Your task to perform on an android device: add a contact Image 0: 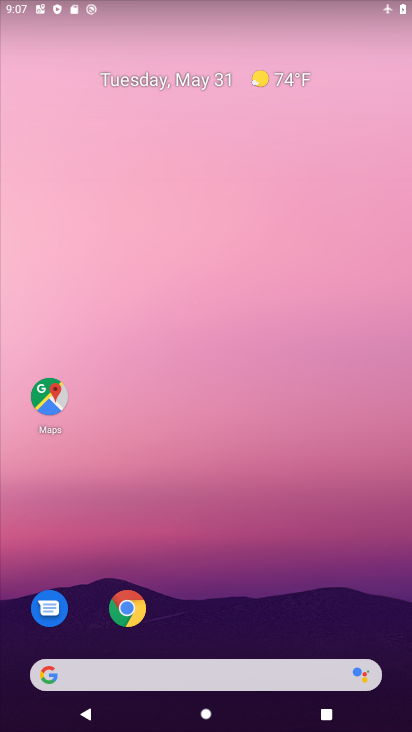
Step 0: drag from (251, 651) to (189, 74)
Your task to perform on an android device: add a contact Image 1: 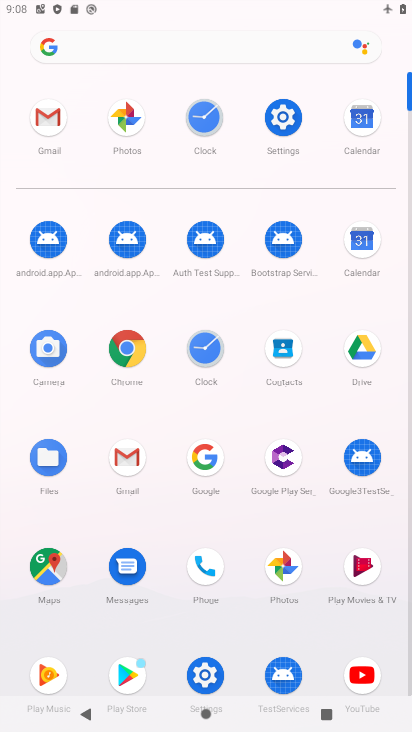
Step 1: click (215, 555)
Your task to perform on an android device: add a contact Image 2: 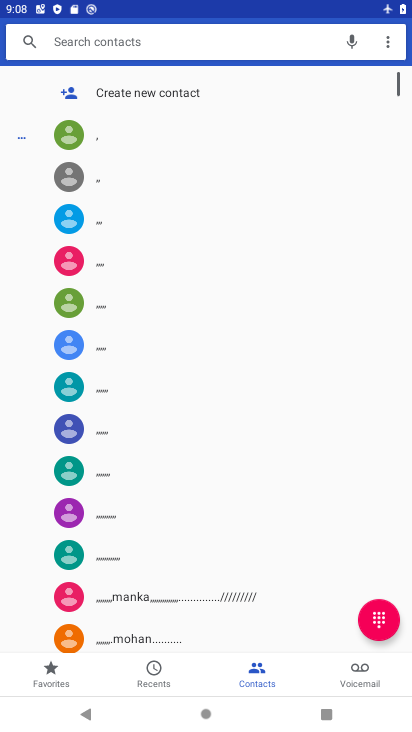
Step 2: click (122, 97)
Your task to perform on an android device: add a contact Image 3: 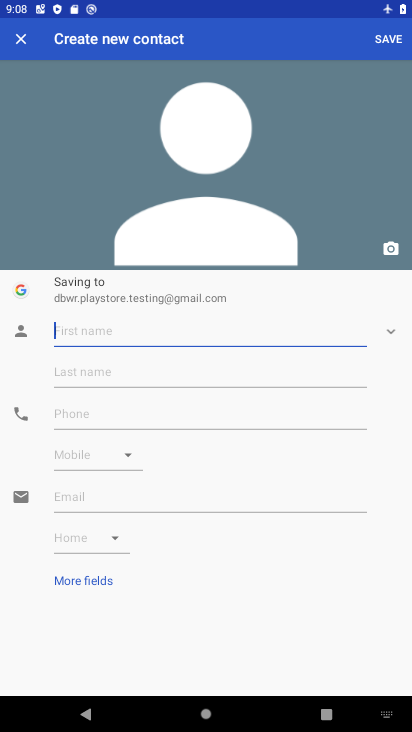
Step 3: type "bhj"
Your task to perform on an android device: add a contact Image 4: 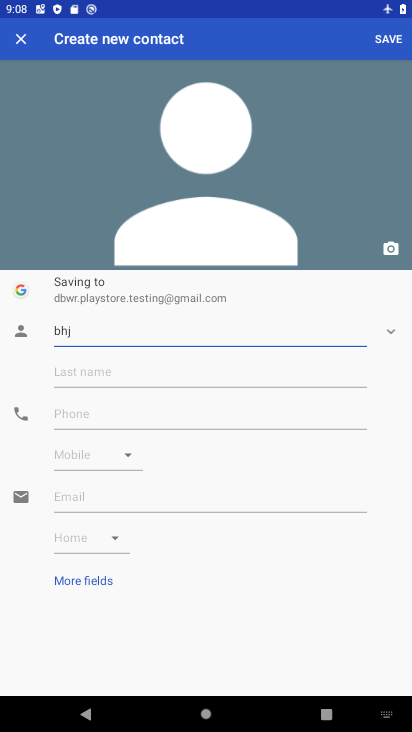
Step 4: click (209, 415)
Your task to perform on an android device: add a contact Image 5: 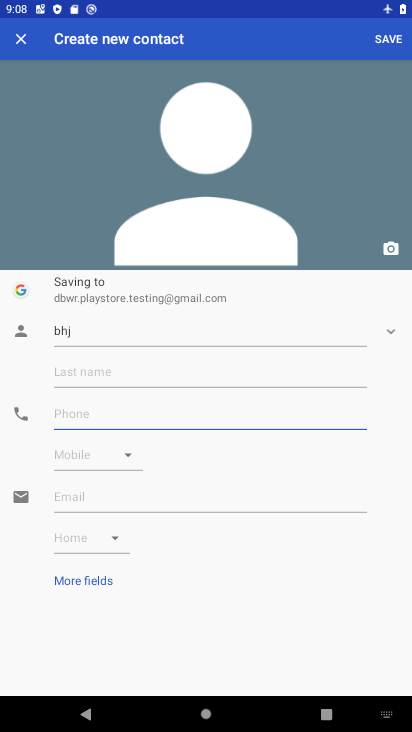
Step 5: type "8765"
Your task to perform on an android device: add a contact Image 6: 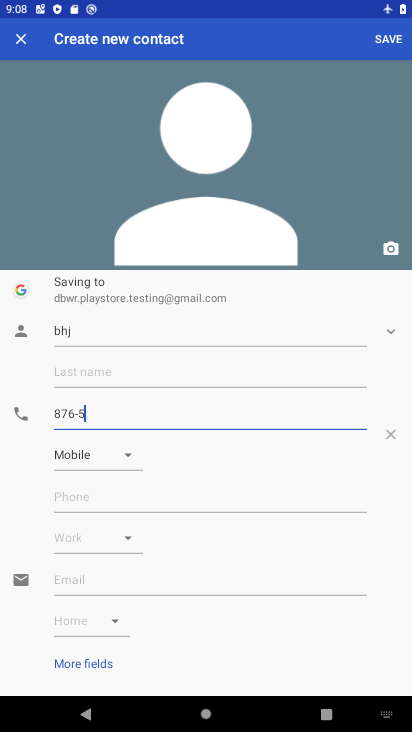
Step 6: click (393, 44)
Your task to perform on an android device: add a contact Image 7: 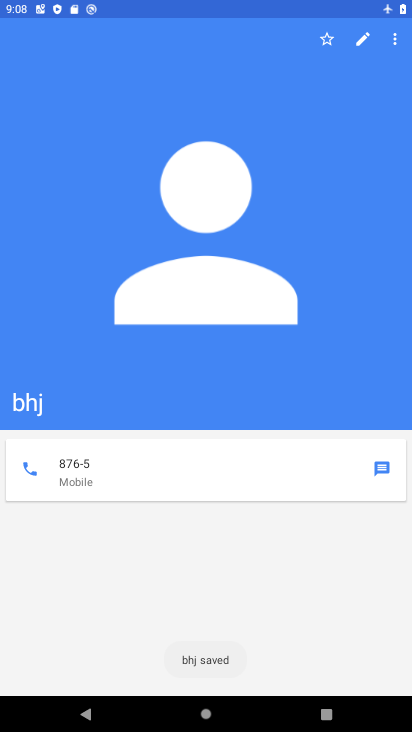
Step 7: task complete